Your task to perform on an android device: turn on bluetooth scan Image 0: 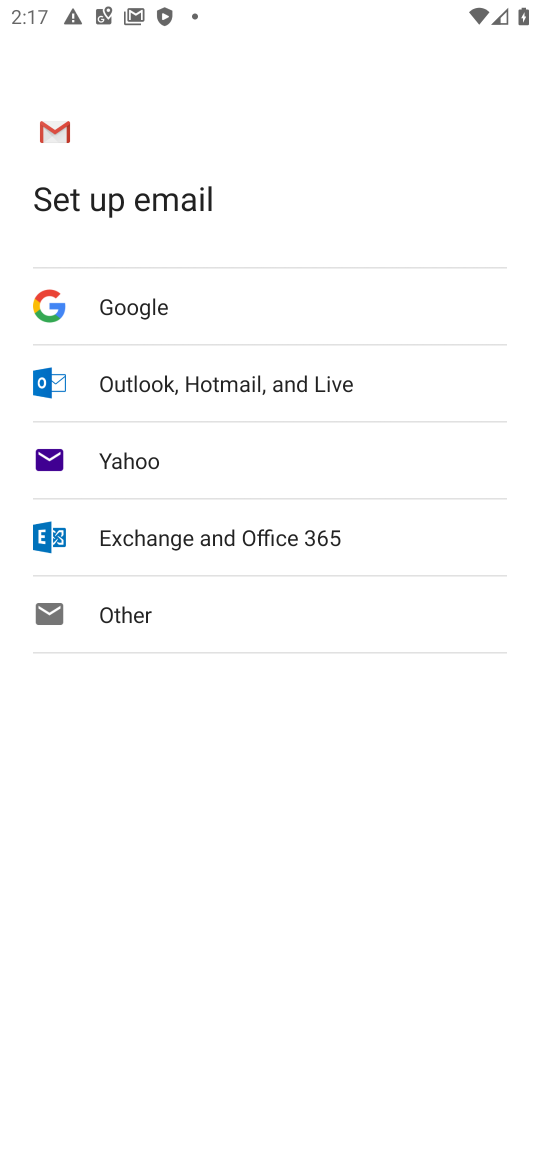
Step 0: press home button
Your task to perform on an android device: turn on bluetooth scan Image 1: 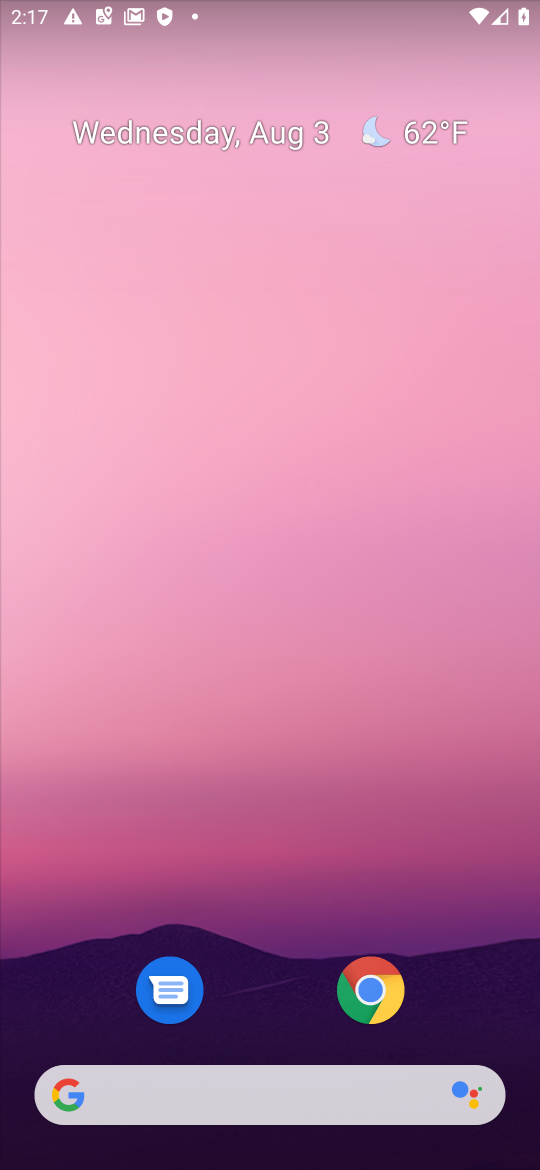
Step 1: drag from (208, 920) to (210, 509)
Your task to perform on an android device: turn on bluetooth scan Image 2: 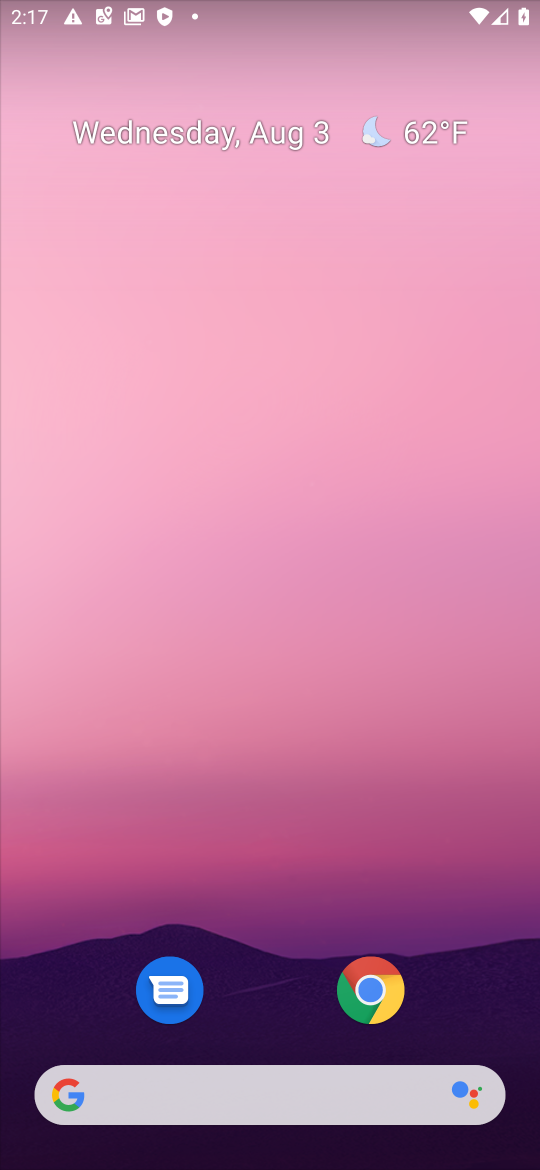
Step 2: drag from (252, 865) to (252, 245)
Your task to perform on an android device: turn on bluetooth scan Image 3: 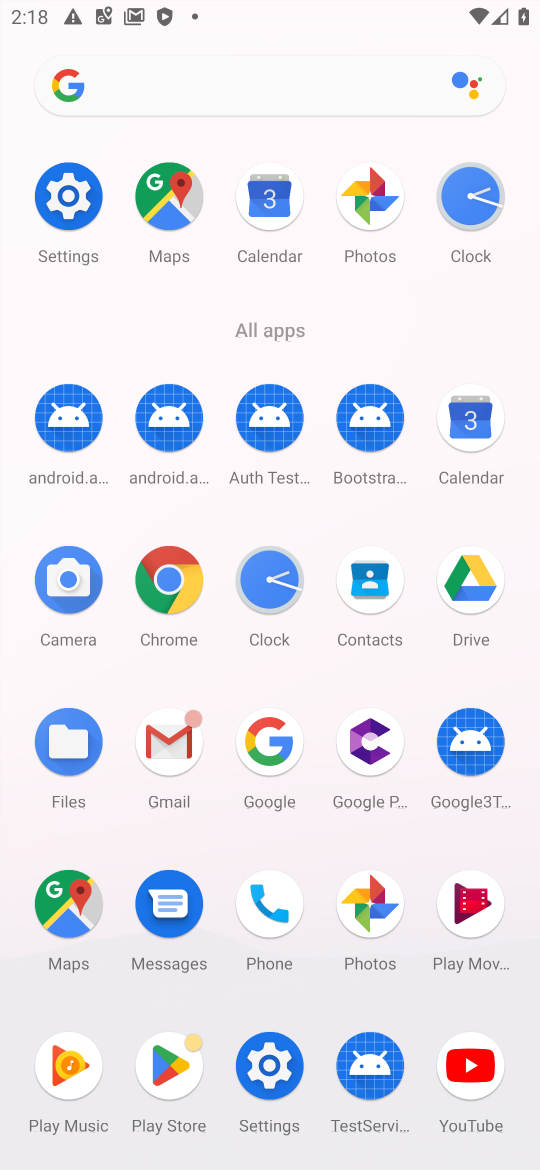
Step 3: click (253, 1068)
Your task to perform on an android device: turn on bluetooth scan Image 4: 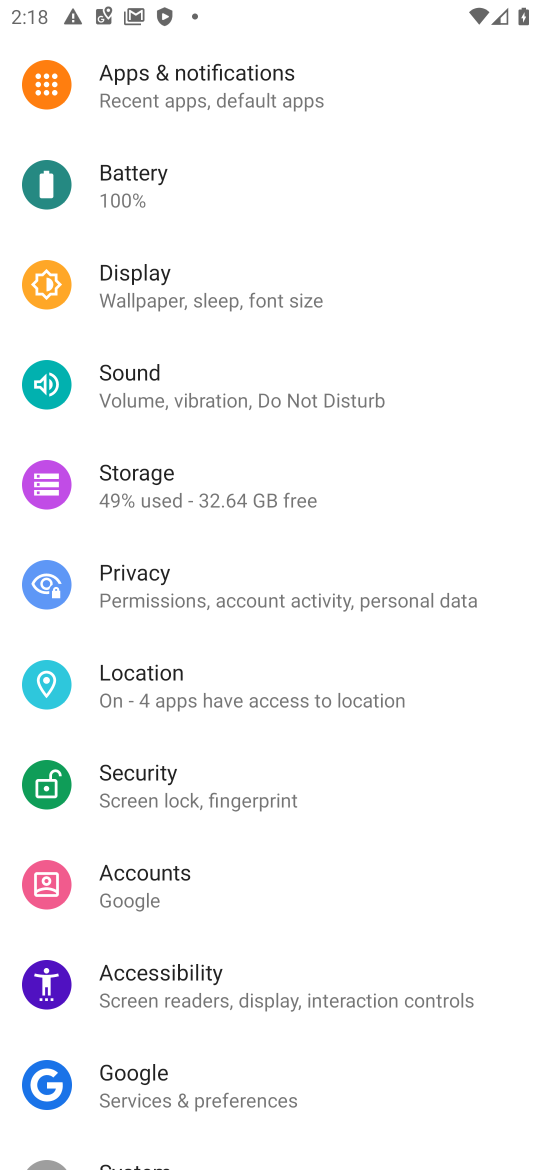
Step 4: click (153, 683)
Your task to perform on an android device: turn on bluetooth scan Image 5: 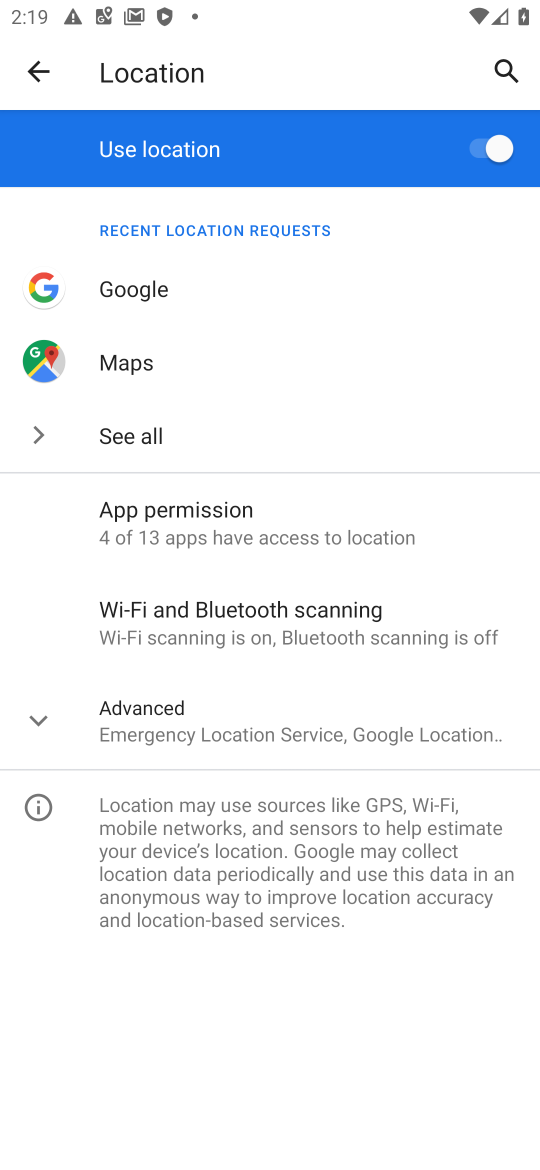
Step 5: click (264, 699)
Your task to perform on an android device: turn on bluetooth scan Image 6: 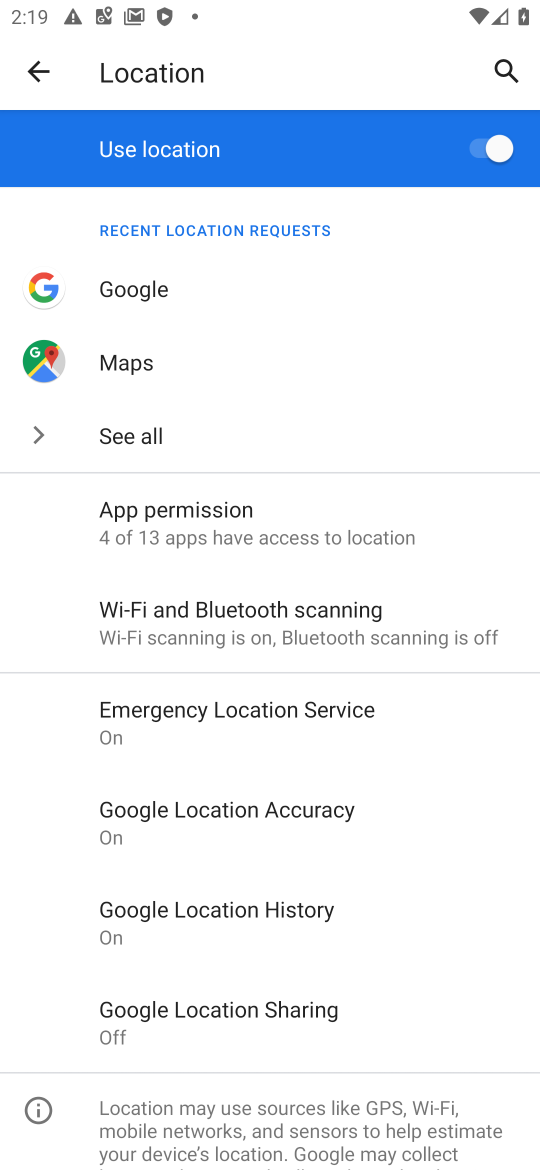
Step 6: click (236, 618)
Your task to perform on an android device: turn on bluetooth scan Image 7: 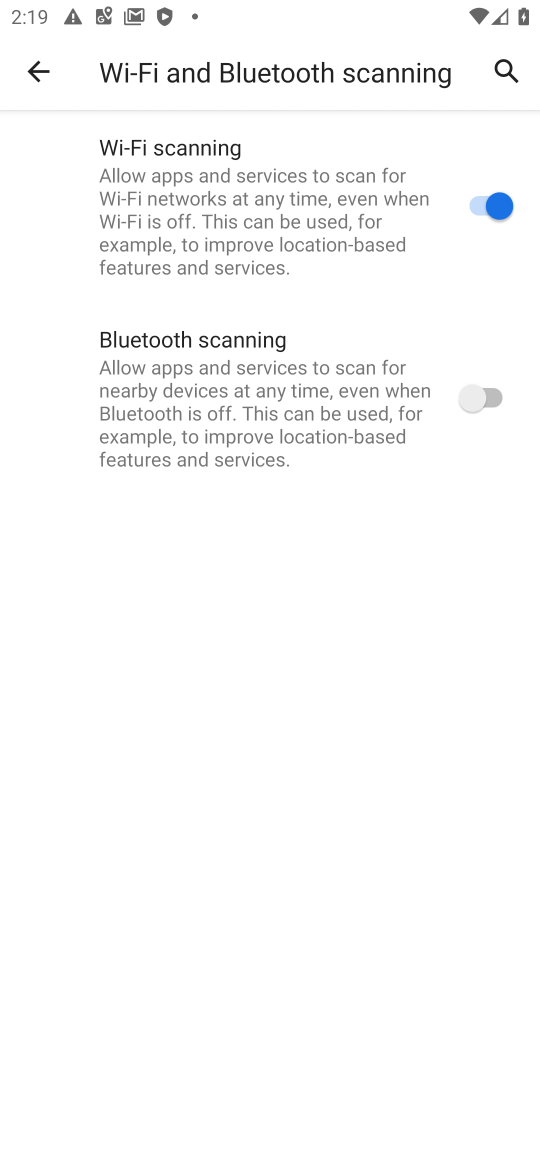
Step 7: click (494, 403)
Your task to perform on an android device: turn on bluetooth scan Image 8: 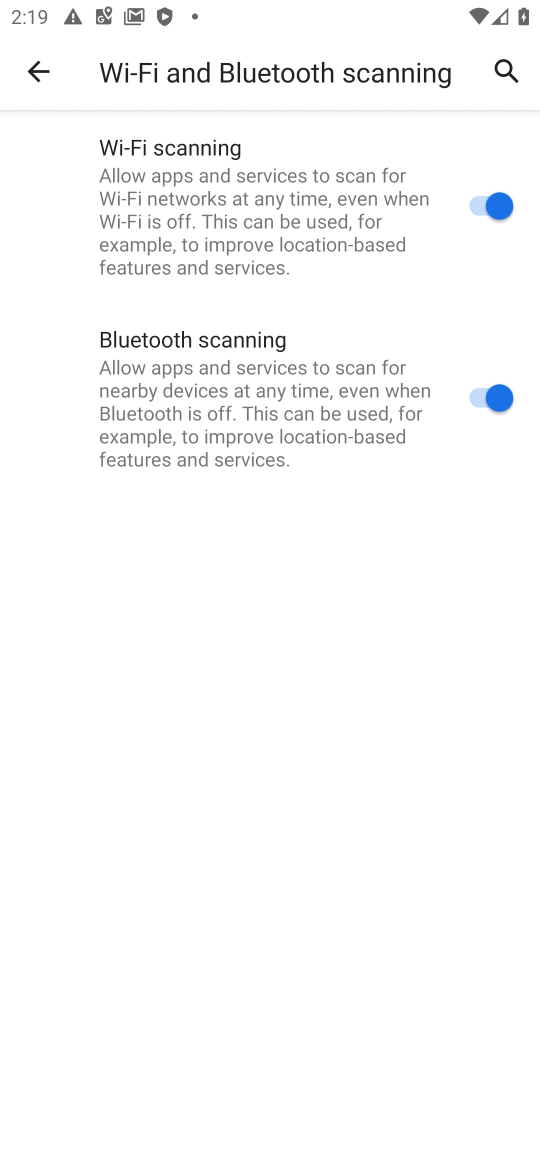
Step 8: task complete